Your task to perform on an android device: manage bookmarks in the chrome app Image 0: 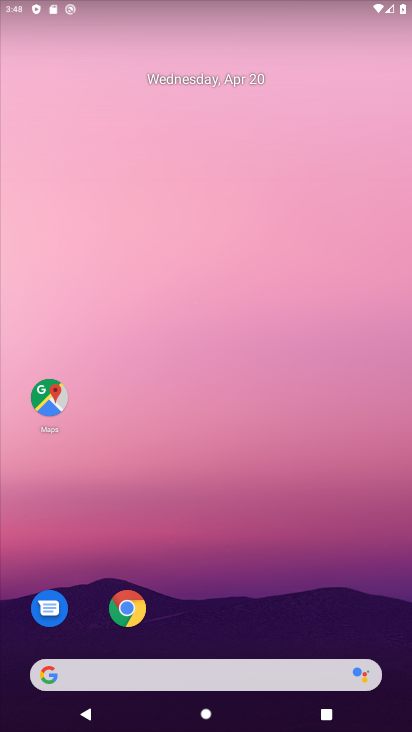
Step 0: drag from (176, 645) to (93, 62)
Your task to perform on an android device: manage bookmarks in the chrome app Image 1: 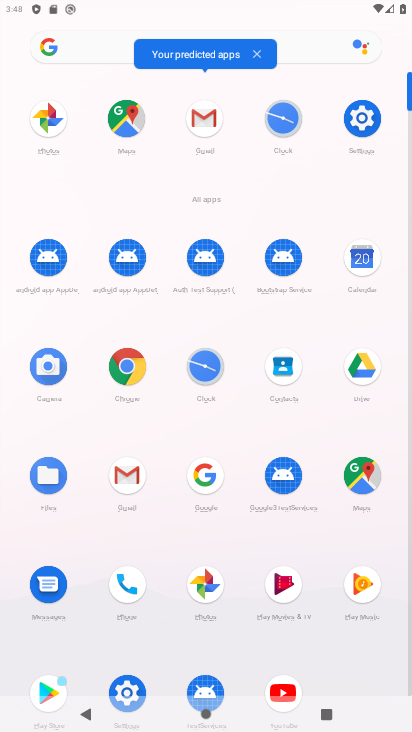
Step 1: click (135, 368)
Your task to perform on an android device: manage bookmarks in the chrome app Image 2: 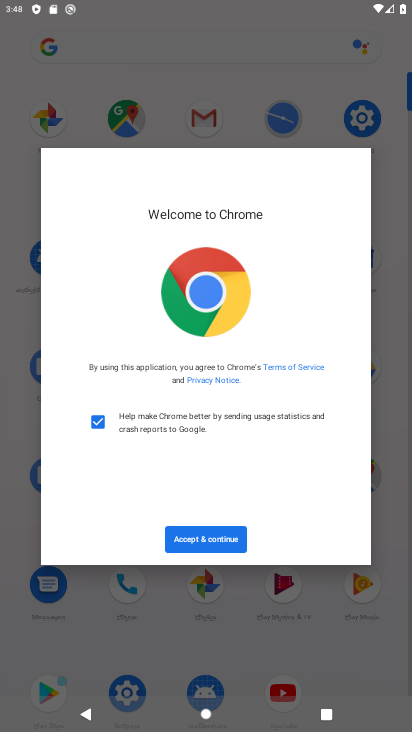
Step 2: click (226, 542)
Your task to perform on an android device: manage bookmarks in the chrome app Image 3: 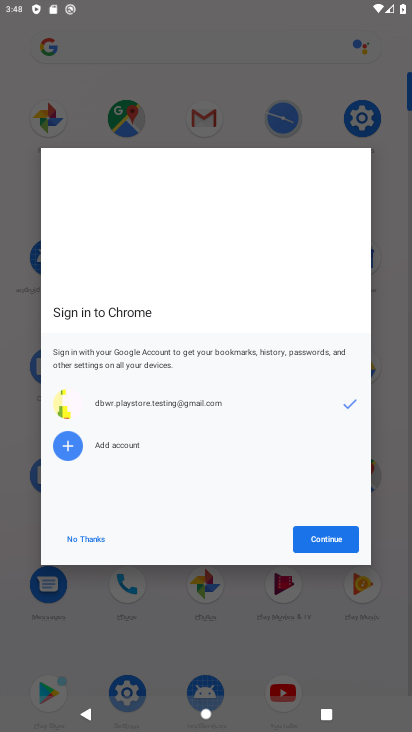
Step 3: click (311, 531)
Your task to perform on an android device: manage bookmarks in the chrome app Image 4: 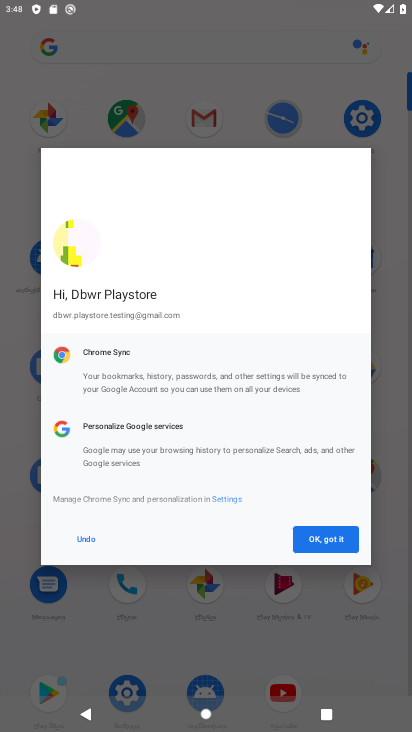
Step 4: click (317, 536)
Your task to perform on an android device: manage bookmarks in the chrome app Image 5: 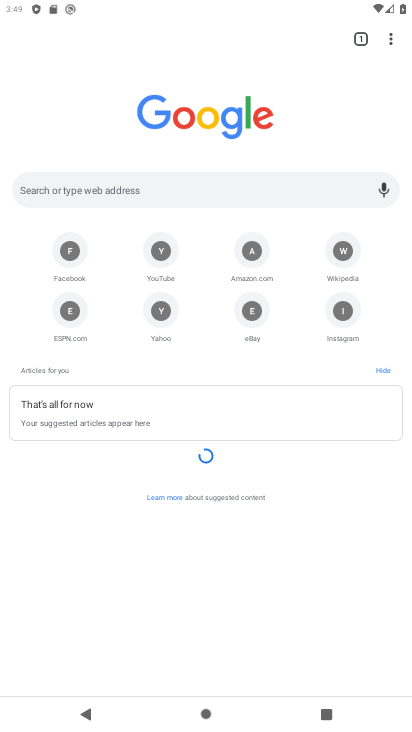
Step 5: click (389, 46)
Your task to perform on an android device: manage bookmarks in the chrome app Image 6: 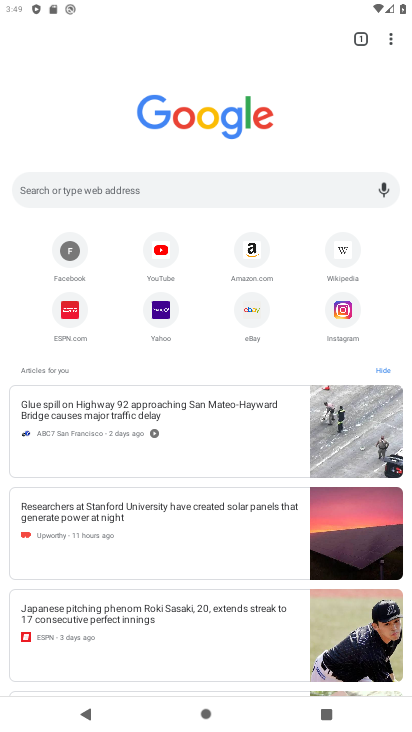
Step 6: click (387, 47)
Your task to perform on an android device: manage bookmarks in the chrome app Image 7: 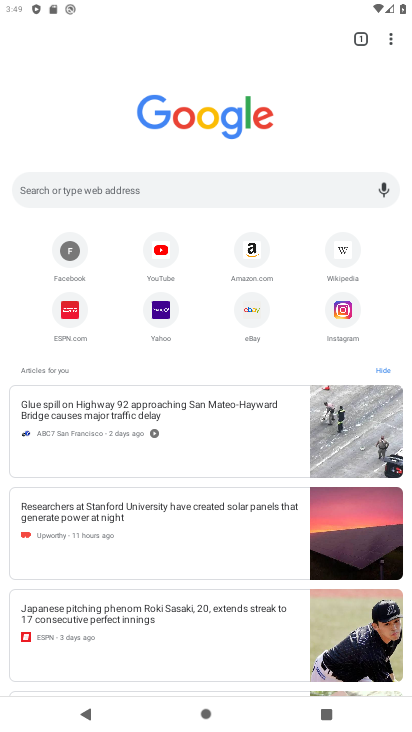
Step 7: click (387, 49)
Your task to perform on an android device: manage bookmarks in the chrome app Image 8: 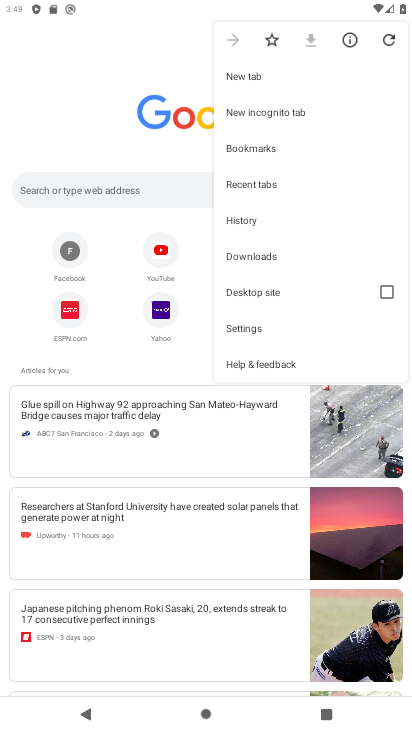
Step 8: click (273, 151)
Your task to perform on an android device: manage bookmarks in the chrome app Image 9: 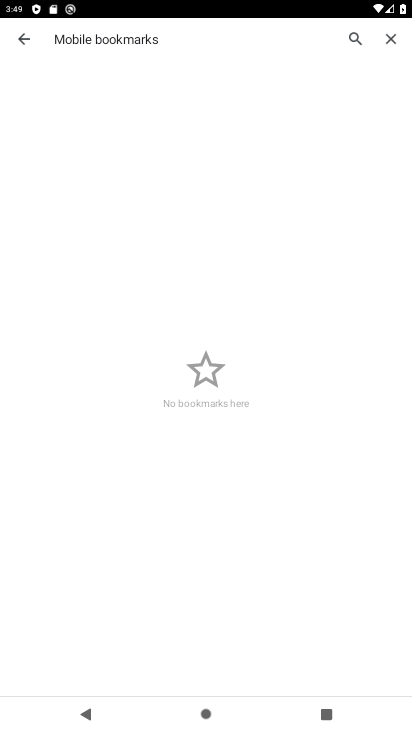
Step 9: task complete